Your task to perform on an android device: turn on bluetooth scan Image 0: 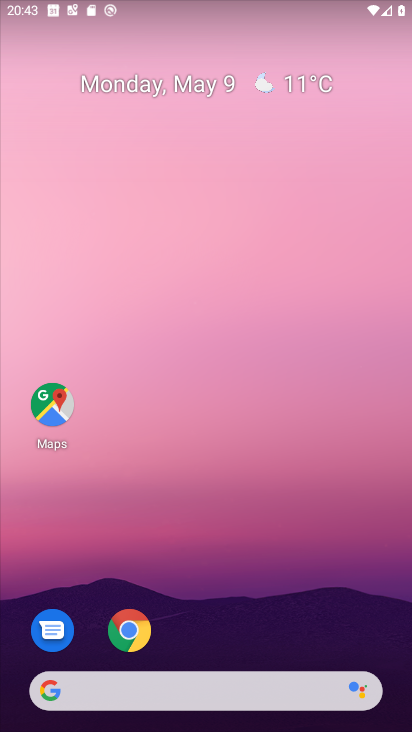
Step 0: drag from (294, 640) to (364, 196)
Your task to perform on an android device: turn on bluetooth scan Image 1: 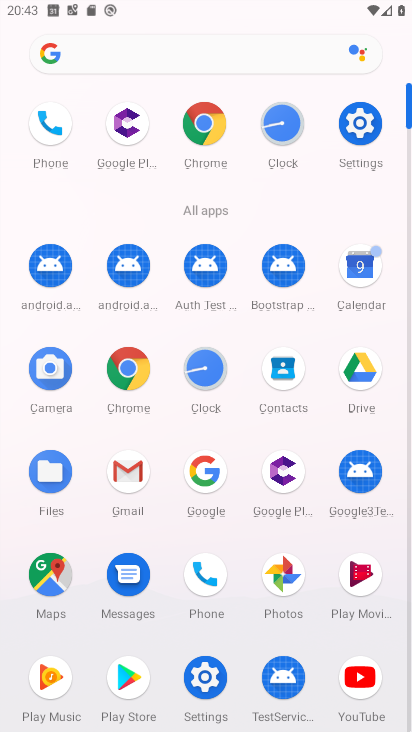
Step 1: click (360, 143)
Your task to perform on an android device: turn on bluetooth scan Image 2: 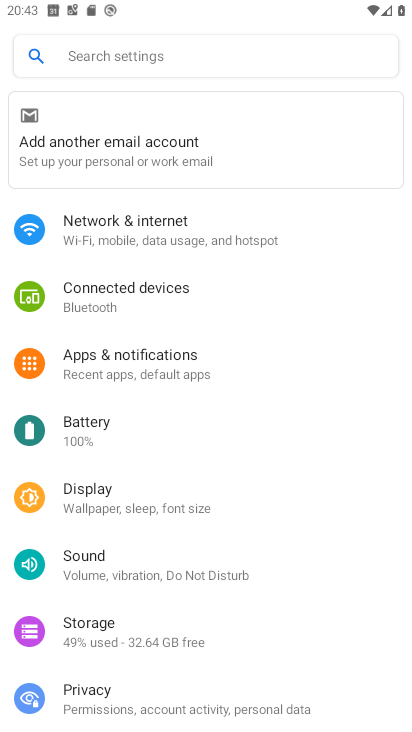
Step 2: drag from (103, 651) to (193, 241)
Your task to perform on an android device: turn on bluetooth scan Image 3: 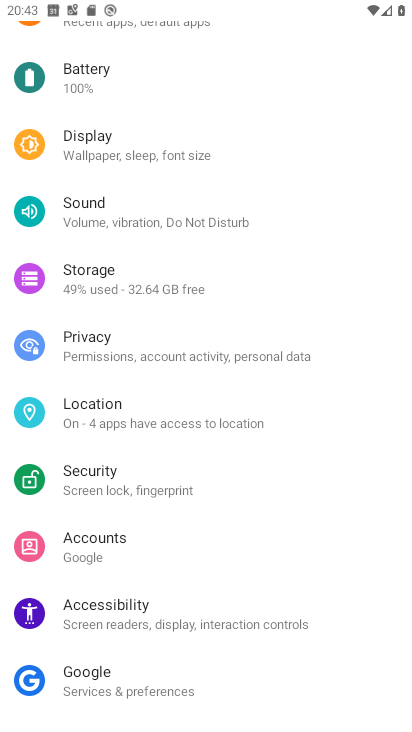
Step 3: click (141, 414)
Your task to perform on an android device: turn on bluetooth scan Image 4: 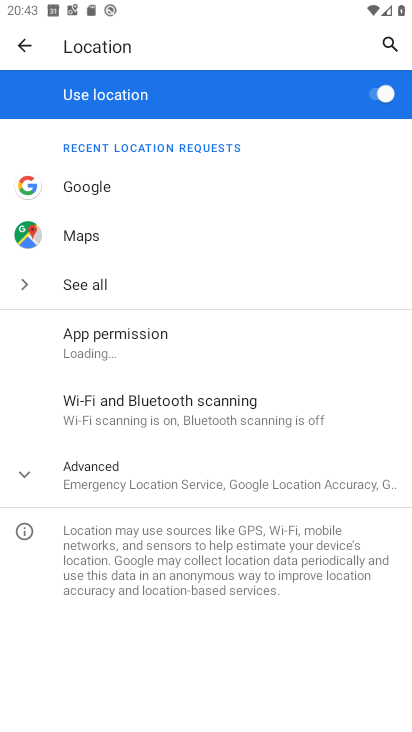
Step 4: click (143, 412)
Your task to perform on an android device: turn on bluetooth scan Image 5: 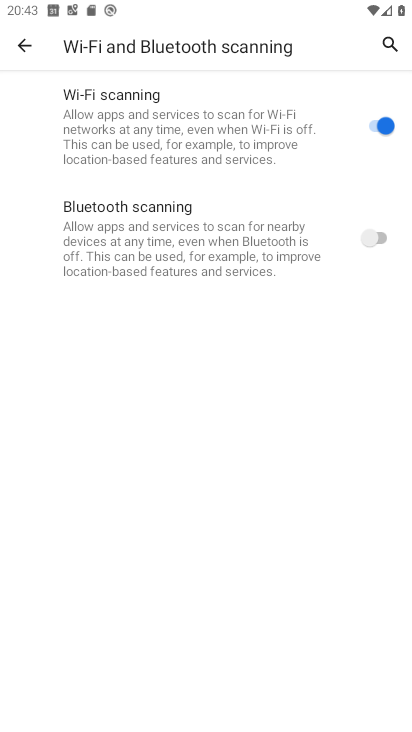
Step 5: click (376, 236)
Your task to perform on an android device: turn on bluetooth scan Image 6: 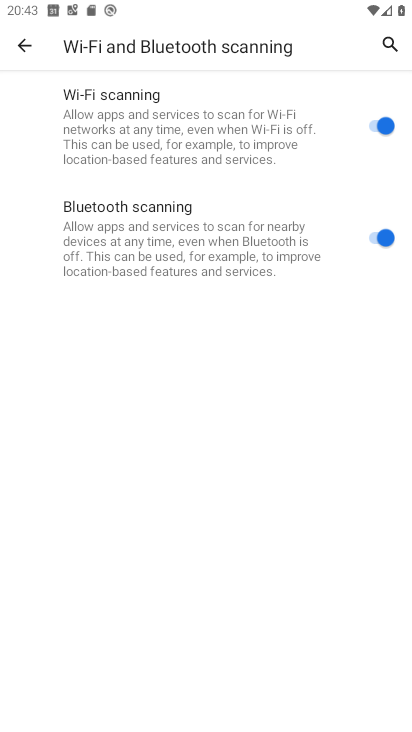
Step 6: task complete